Your task to perform on an android device: Is it going to rain today? Image 0: 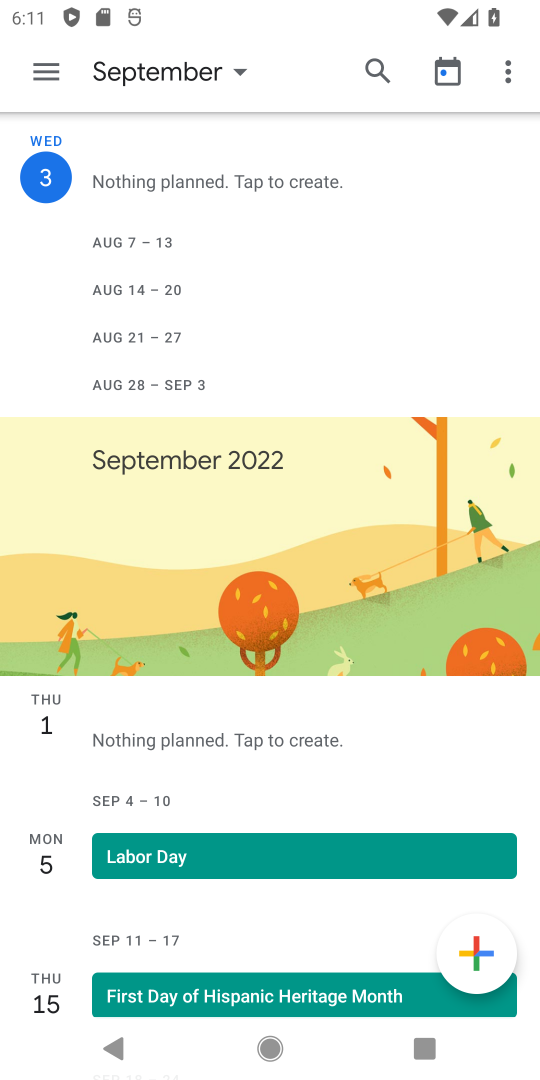
Step 0: press home button
Your task to perform on an android device: Is it going to rain today? Image 1: 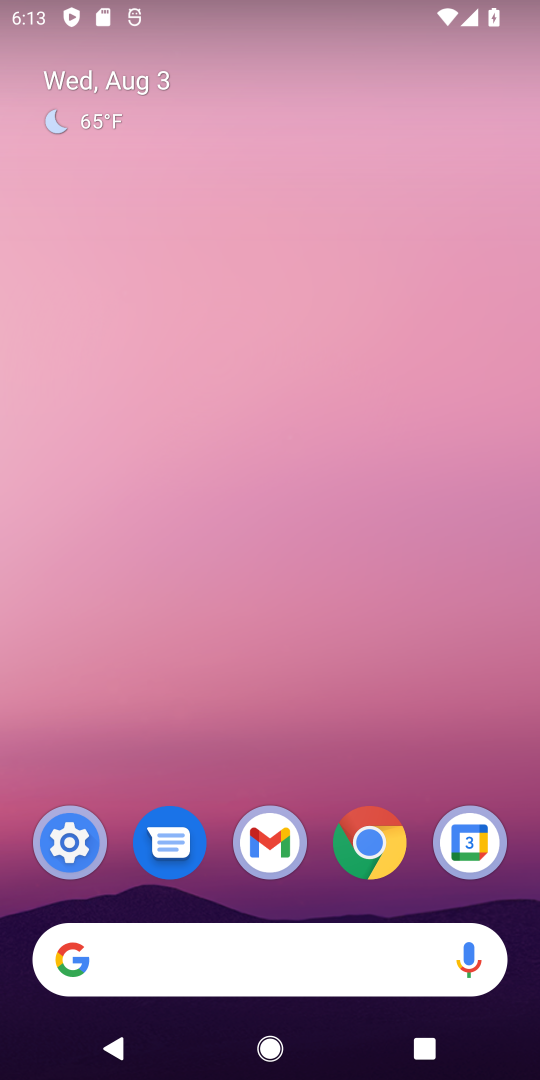
Step 1: click (320, 950)
Your task to perform on an android device: Is it going to rain today? Image 2: 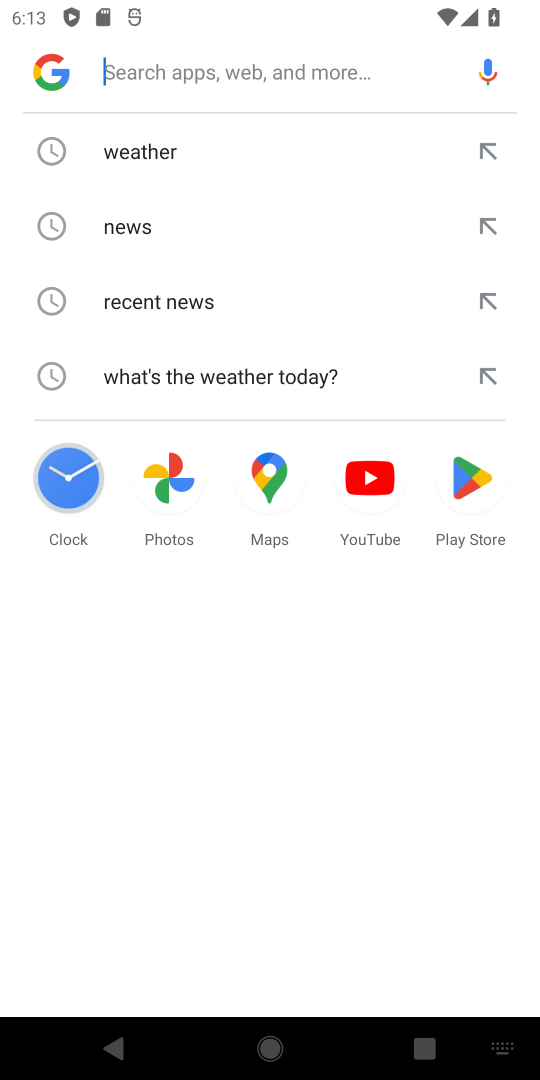
Step 2: type "Is it going to rain today?"
Your task to perform on an android device: Is it going to rain today? Image 3: 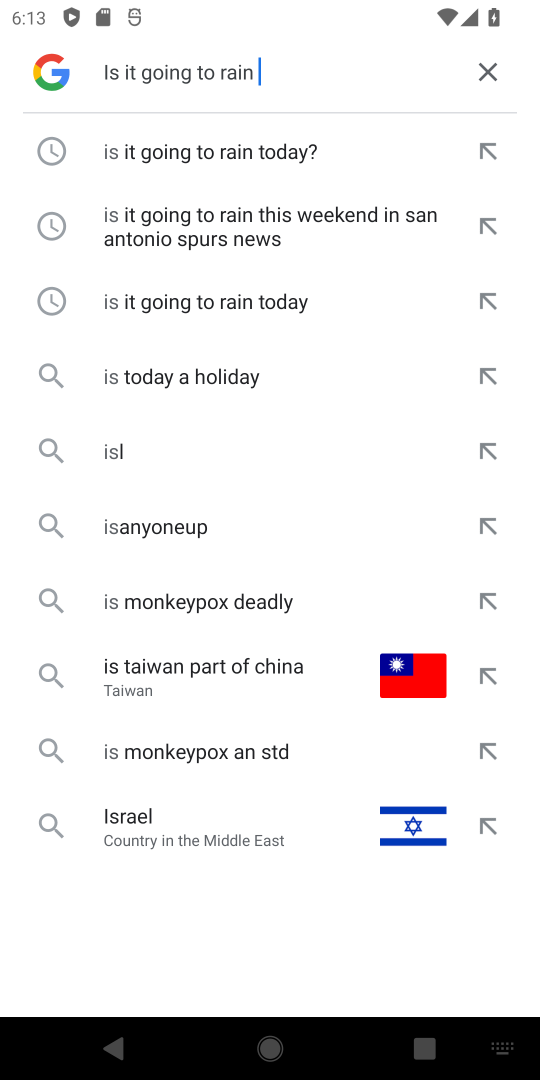
Step 3: type ""
Your task to perform on an android device: Is it going to rain today? Image 4: 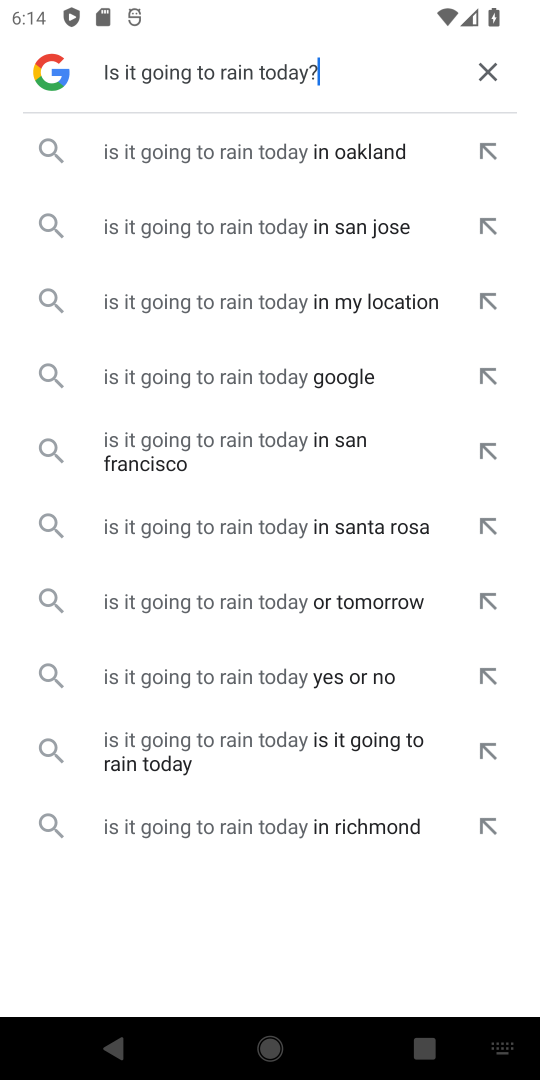
Step 4: type ""
Your task to perform on an android device: Is it going to rain today? Image 5: 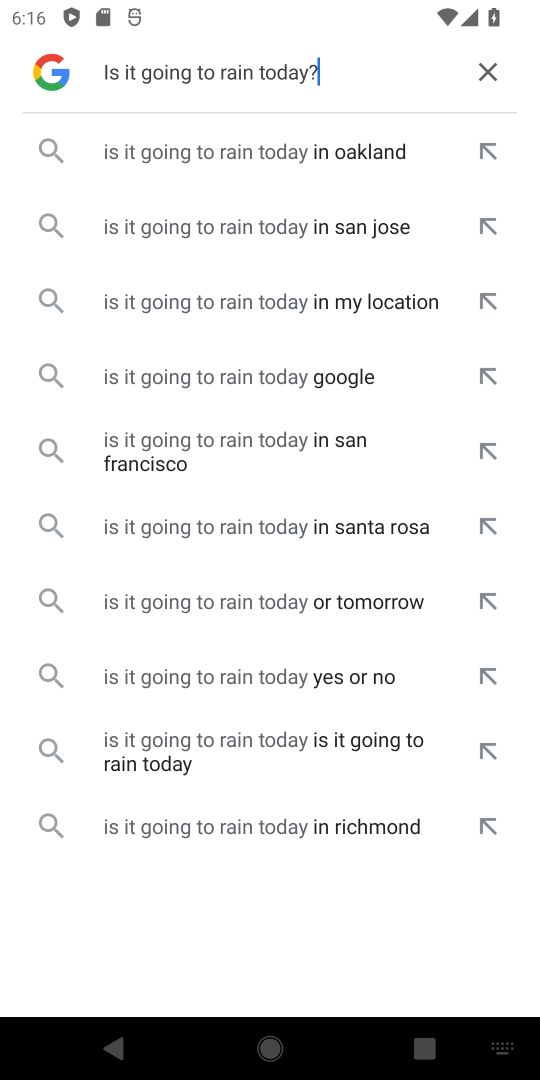
Step 5: type ""
Your task to perform on an android device: Is it going to rain today? Image 6: 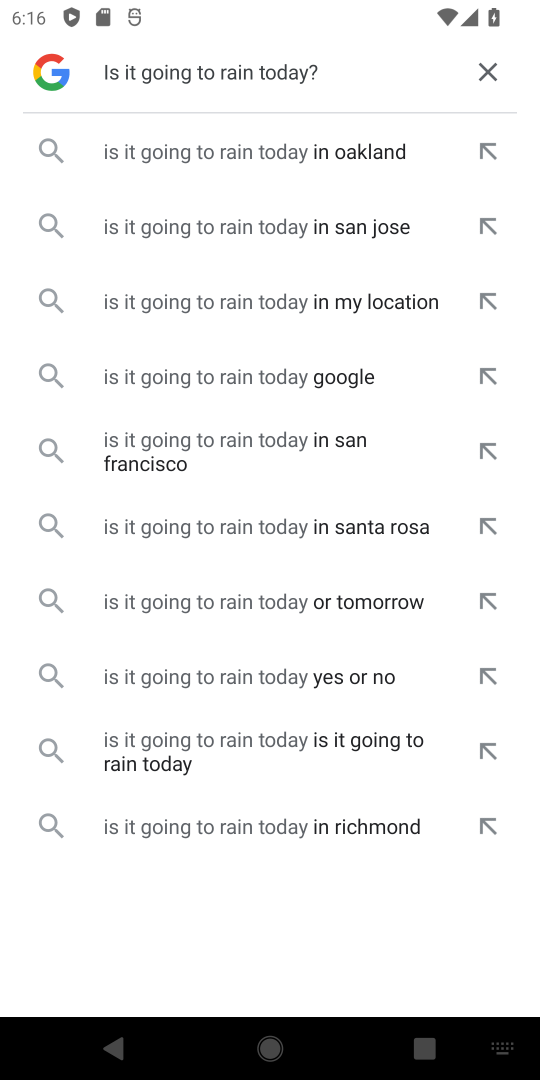
Step 6: press enter
Your task to perform on an android device: Is it going to rain today? Image 7: 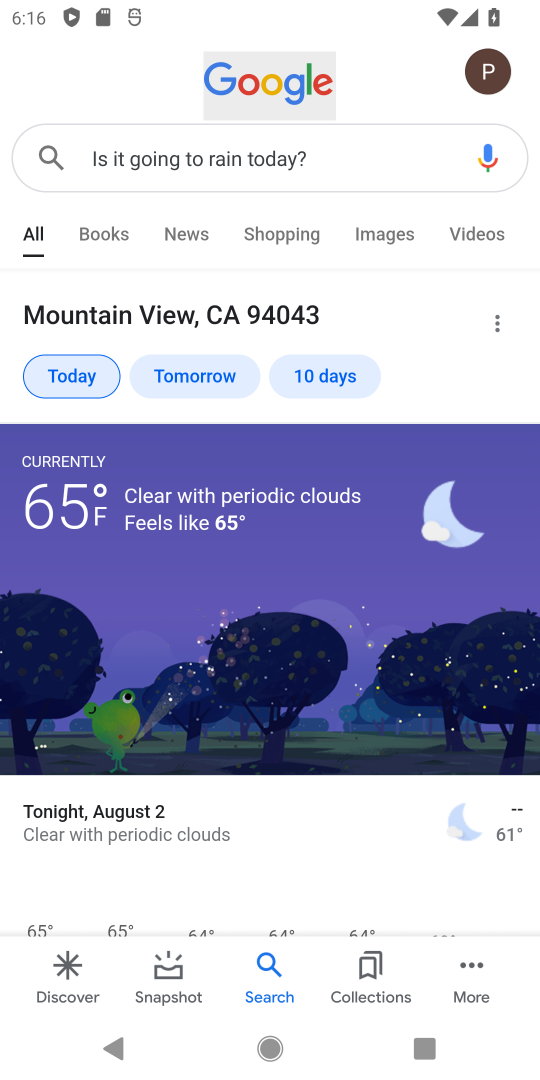
Step 7: task complete